Your task to perform on an android device: Open the calendar app, open the side menu, and click the "Day" option Image 0: 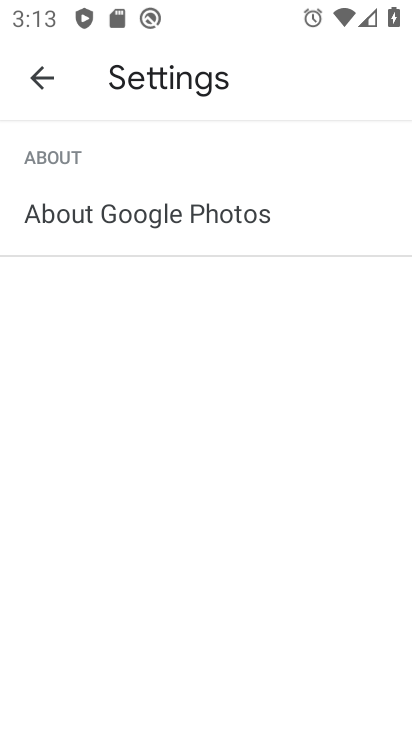
Step 0: press home button
Your task to perform on an android device: Open the calendar app, open the side menu, and click the "Day" option Image 1: 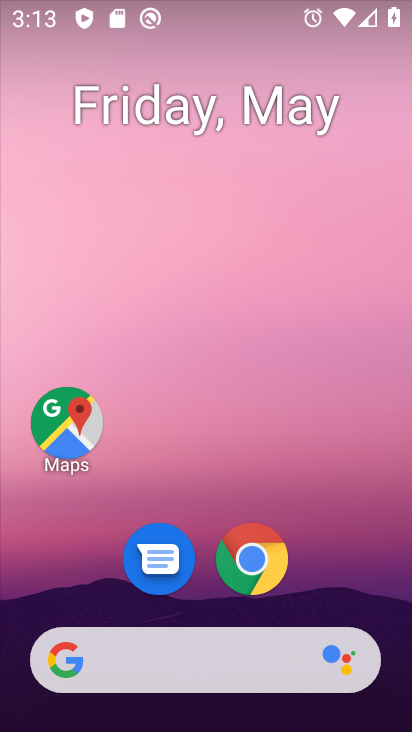
Step 1: drag from (359, 540) to (382, 196)
Your task to perform on an android device: Open the calendar app, open the side menu, and click the "Day" option Image 2: 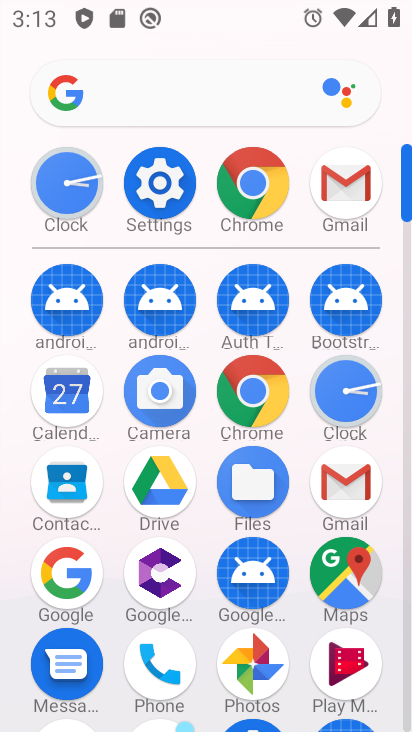
Step 2: click (74, 404)
Your task to perform on an android device: Open the calendar app, open the side menu, and click the "Day" option Image 3: 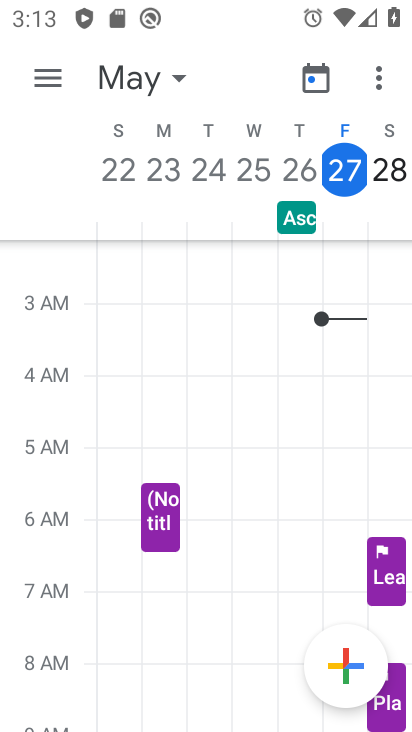
Step 3: click (50, 73)
Your task to perform on an android device: Open the calendar app, open the side menu, and click the "Day" option Image 4: 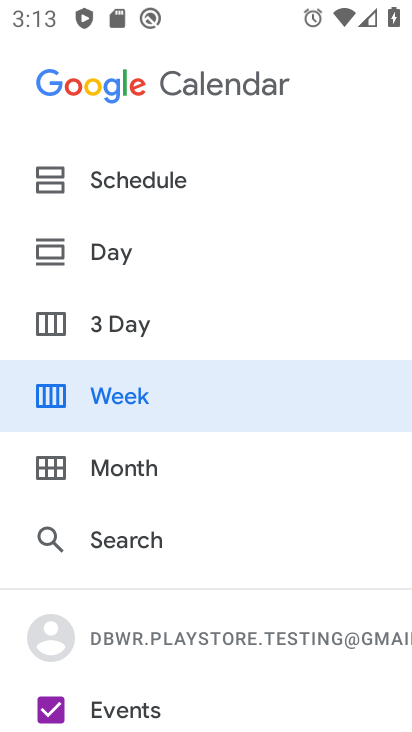
Step 4: click (85, 246)
Your task to perform on an android device: Open the calendar app, open the side menu, and click the "Day" option Image 5: 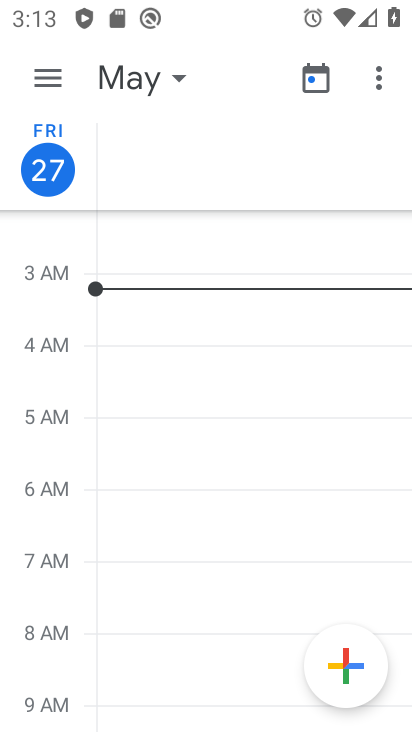
Step 5: task complete